Your task to perform on an android device: Search for Mexican restaurants on Maps Image 0: 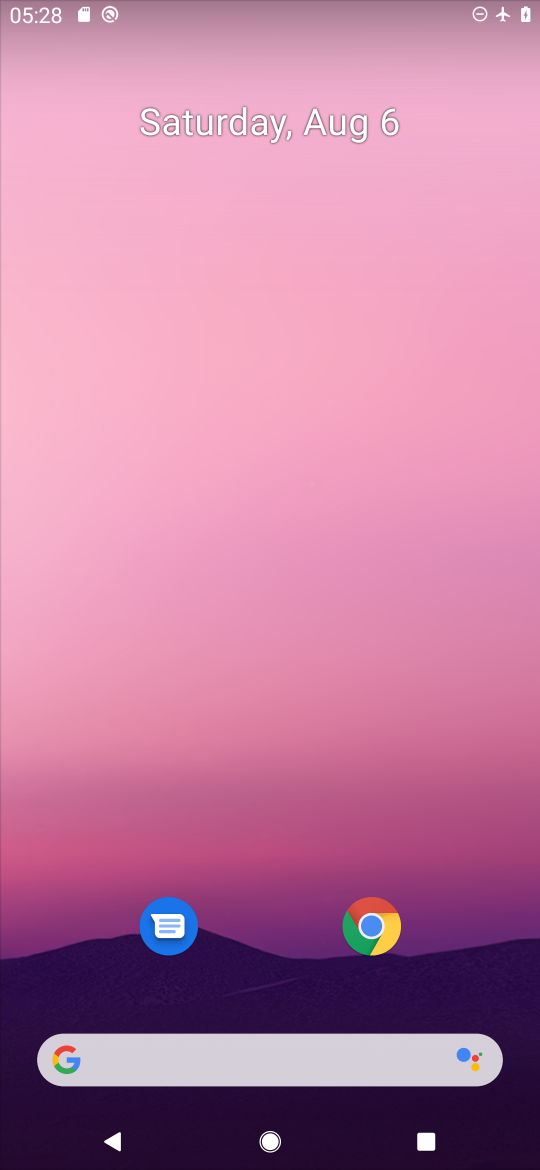
Step 0: drag from (233, 874) to (207, 255)
Your task to perform on an android device: Search for Mexican restaurants on Maps Image 1: 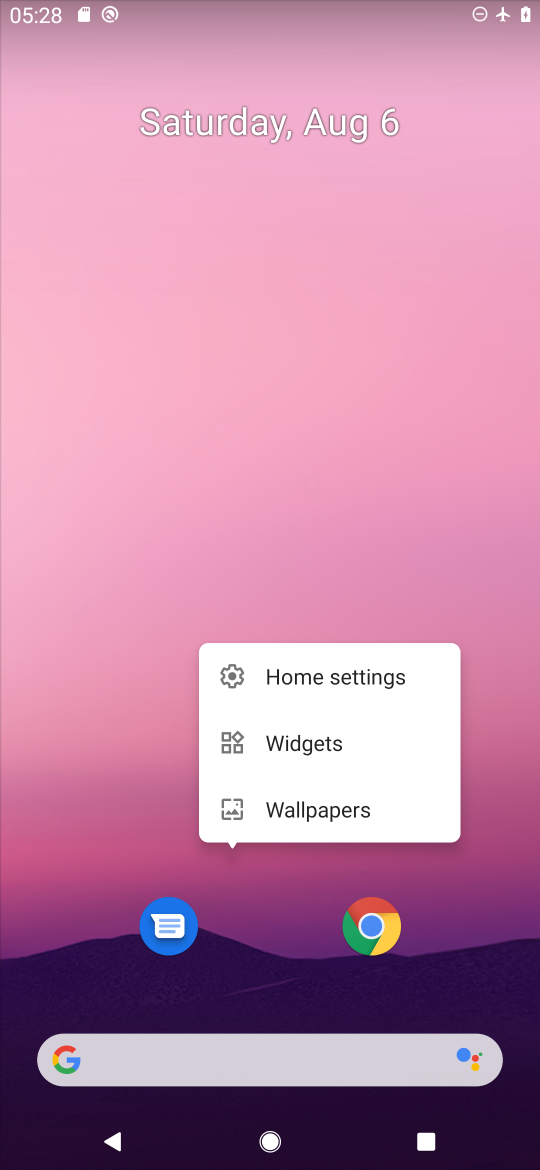
Step 1: drag from (271, 949) to (284, 245)
Your task to perform on an android device: Search for Mexican restaurants on Maps Image 2: 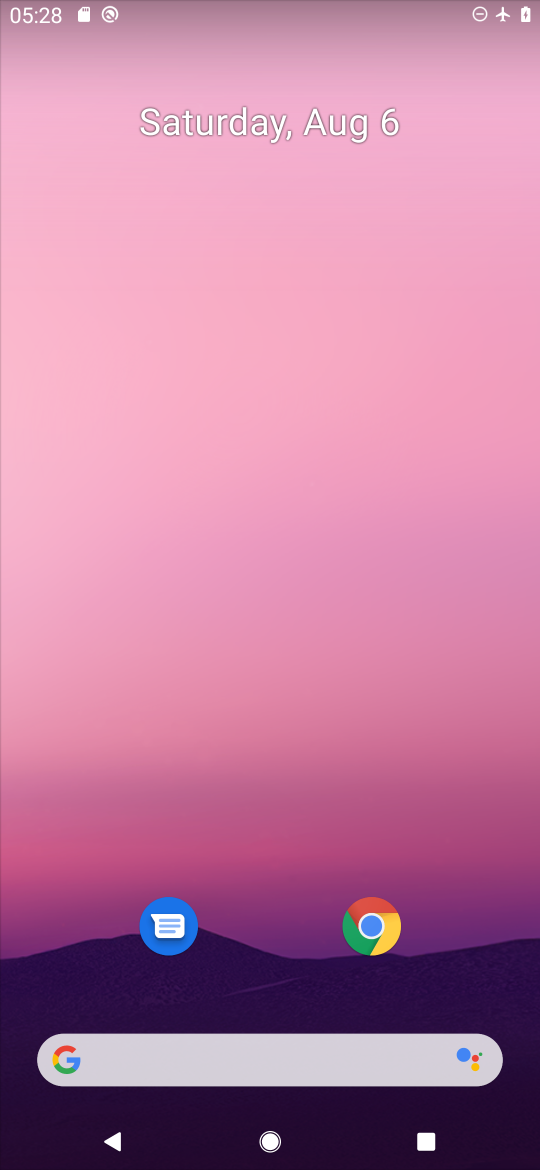
Step 2: drag from (259, 707) to (259, 289)
Your task to perform on an android device: Search for Mexican restaurants on Maps Image 3: 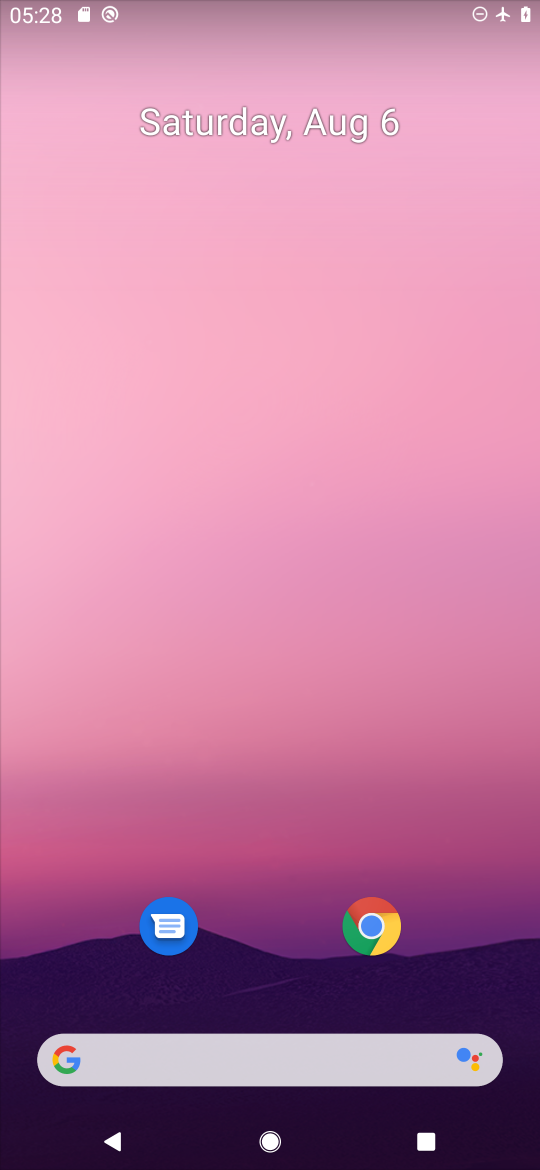
Step 3: drag from (251, 1002) to (262, 315)
Your task to perform on an android device: Search for Mexican restaurants on Maps Image 4: 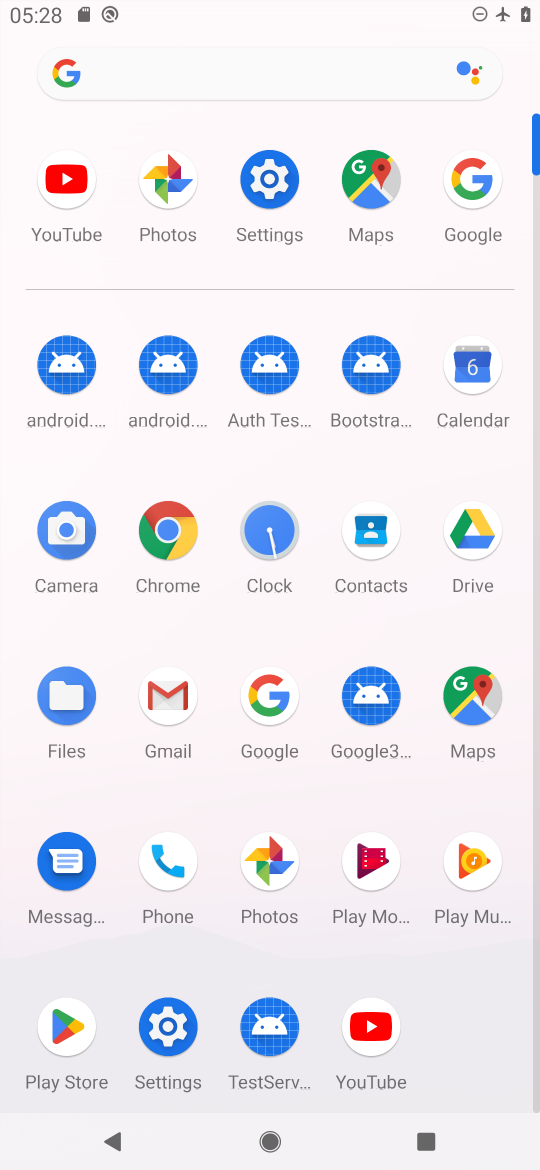
Step 4: click (467, 725)
Your task to perform on an android device: Search for Mexican restaurants on Maps Image 5: 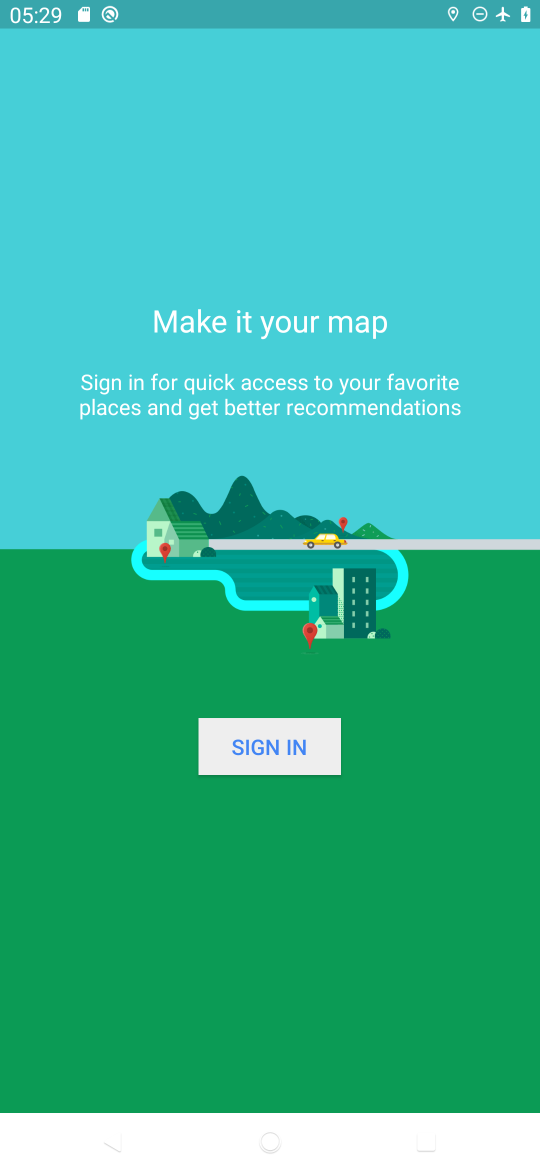
Step 5: task complete